Your task to perform on an android device: Open Android settings Image 0: 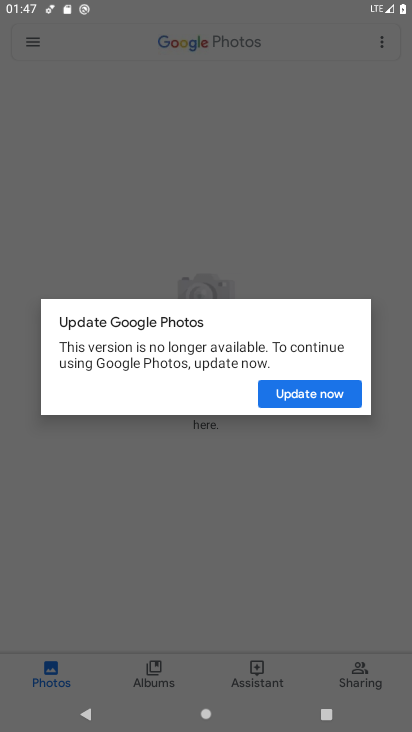
Step 0: press home button
Your task to perform on an android device: Open Android settings Image 1: 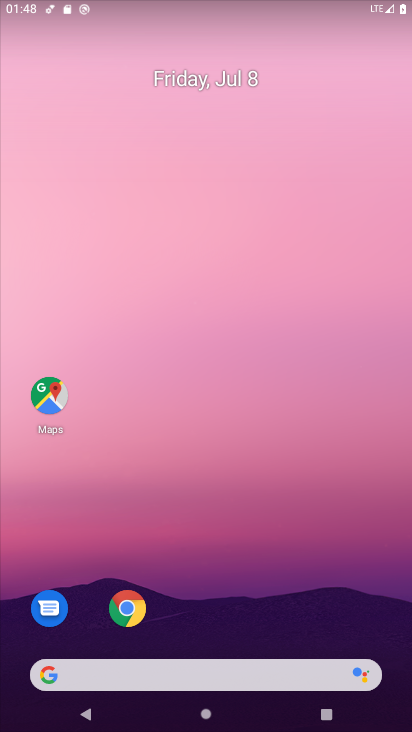
Step 1: drag from (293, 599) to (292, 265)
Your task to perform on an android device: Open Android settings Image 2: 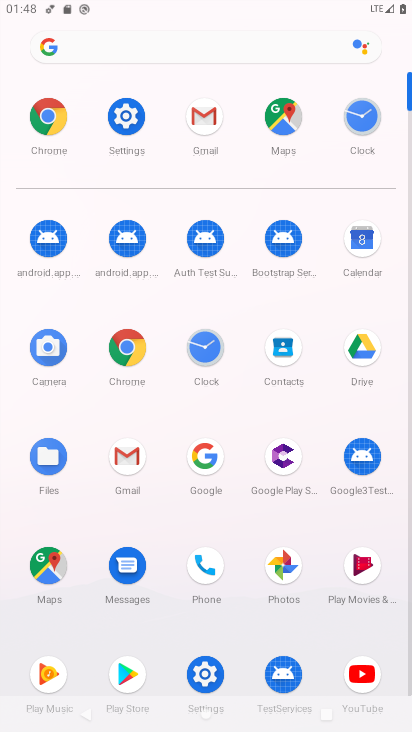
Step 2: click (133, 98)
Your task to perform on an android device: Open Android settings Image 3: 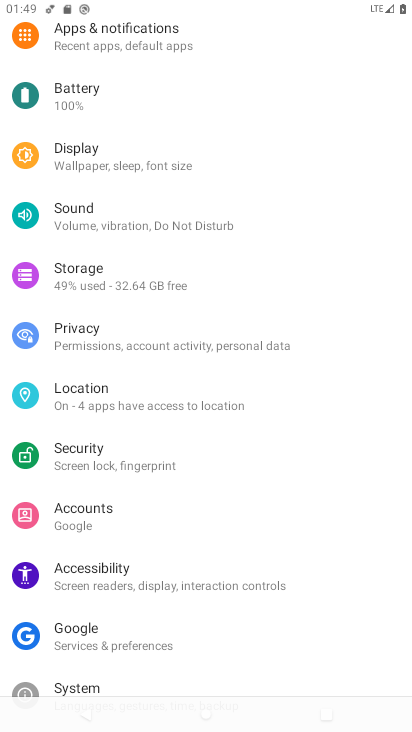
Step 3: task complete